Your task to perform on an android device: Do I have any events this weekend? Image 0: 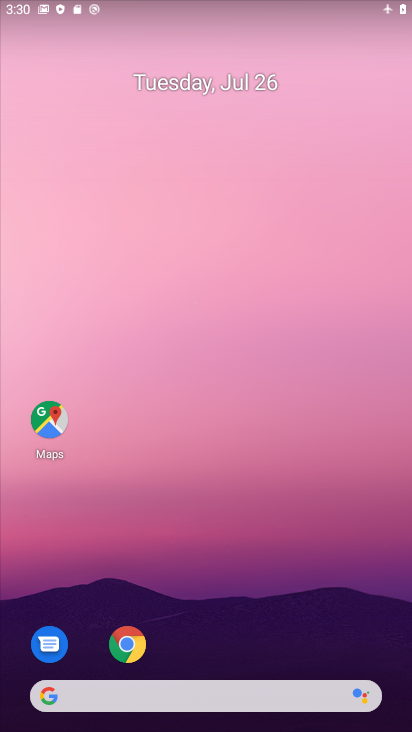
Step 0: drag from (387, 646) to (324, 109)
Your task to perform on an android device: Do I have any events this weekend? Image 1: 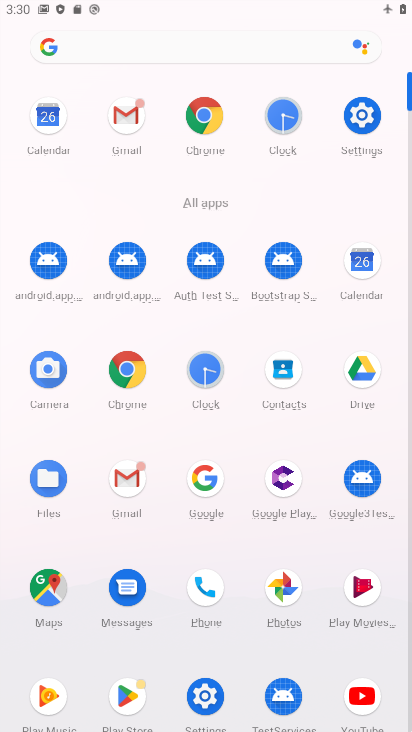
Step 1: click (361, 263)
Your task to perform on an android device: Do I have any events this weekend? Image 2: 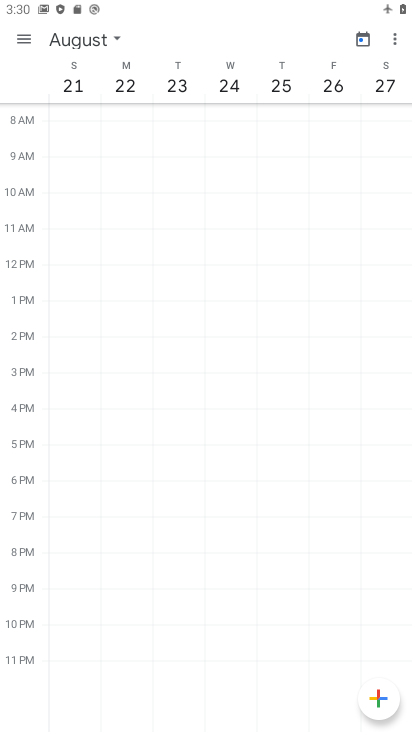
Step 2: click (103, 37)
Your task to perform on an android device: Do I have any events this weekend? Image 3: 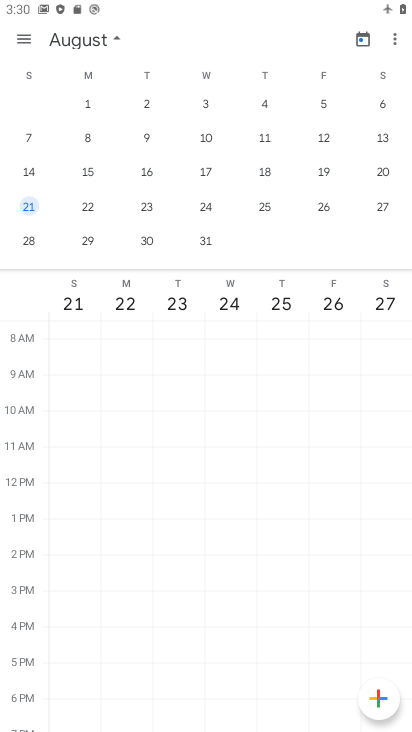
Step 3: drag from (22, 172) to (377, 183)
Your task to perform on an android device: Do I have any events this weekend? Image 4: 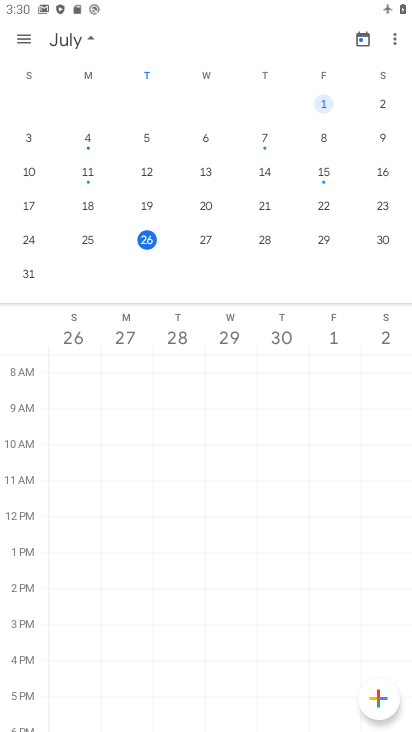
Step 4: click (143, 236)
Your task to perform on an android device: Do I have any events this weekend? Image 5: 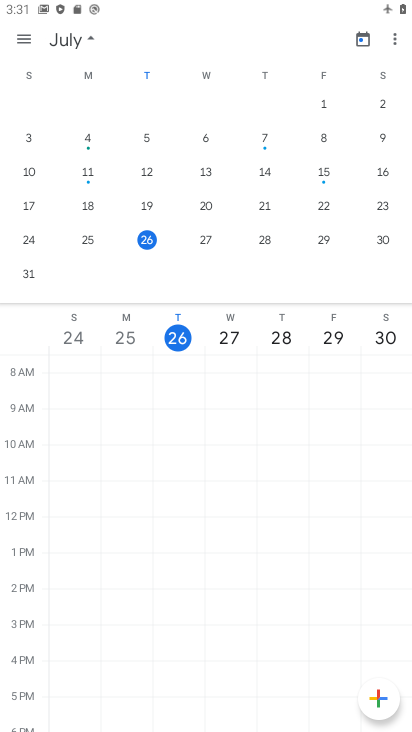
Step 5: task complete